Your task to perform on an android device: Open Google Chrome and open the bookmarks view Image 0: 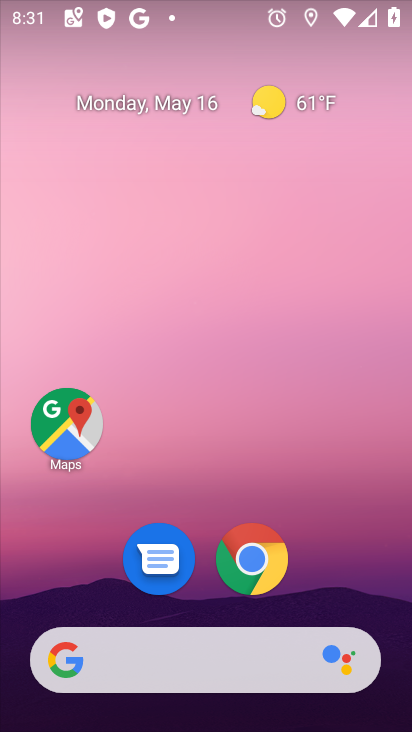
Step 0: drag from (388, 587) to (390, 158)
Your task to perform on an android device: Open Google Chrome and open the bookmarks view Image 1: 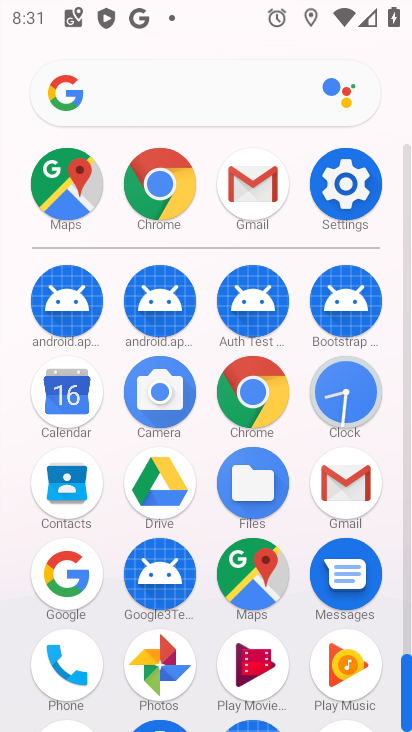
Step 1: click (276, 392)
Your task to perform on an android device: Open Google Chrome and open the bookmarks view Image 2: 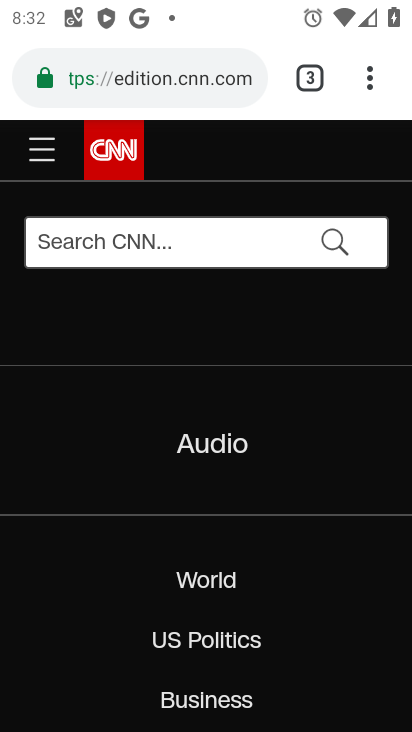
Step 2: task complete